Your task to perform on an android device: open device folders in google photos Image 0: 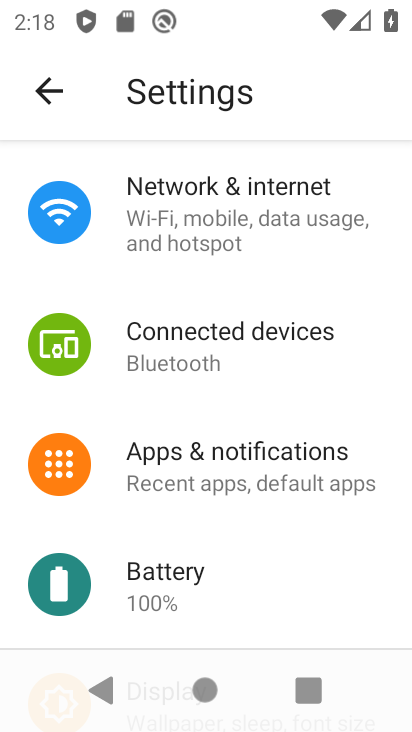
Step 0: press home button
Your task to perform on an android device: open device folders in google photos Image 1: 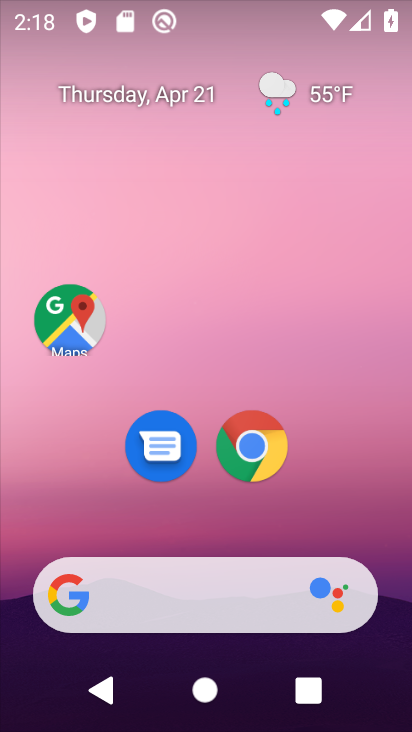
Step 1: drag from (213, 729) to (199, 85)
Your task to perform on an android device: open device folders in google photos Image 2: 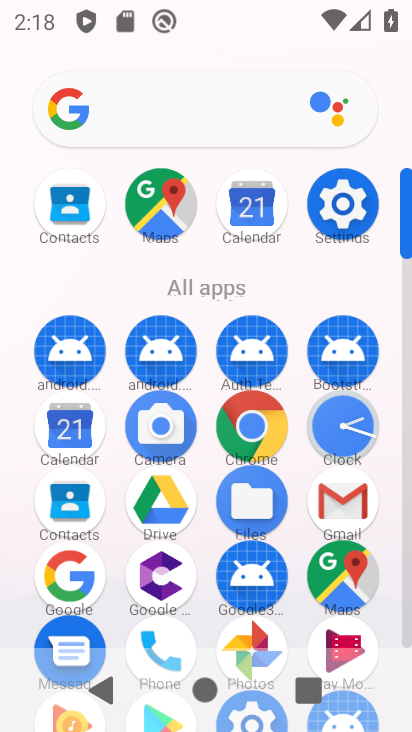
Step 2: drag from (210, 575) to (186, 255)
Your task to perform on an android device: open device folders in google photos Image 3: 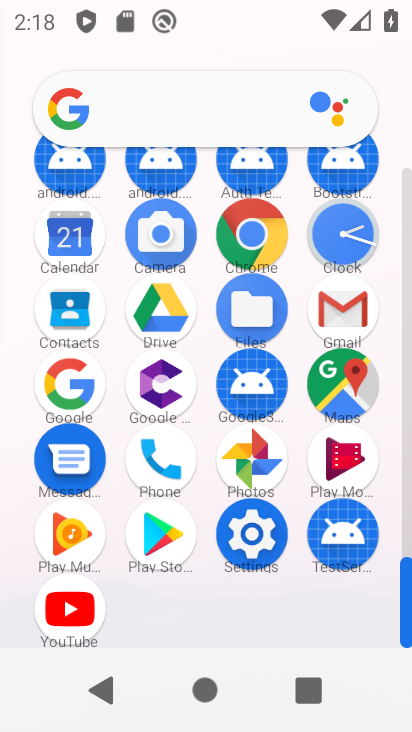
Step 3: click (255, 455)
Your task to perform on an android device: open device folders in google photos Image 4: 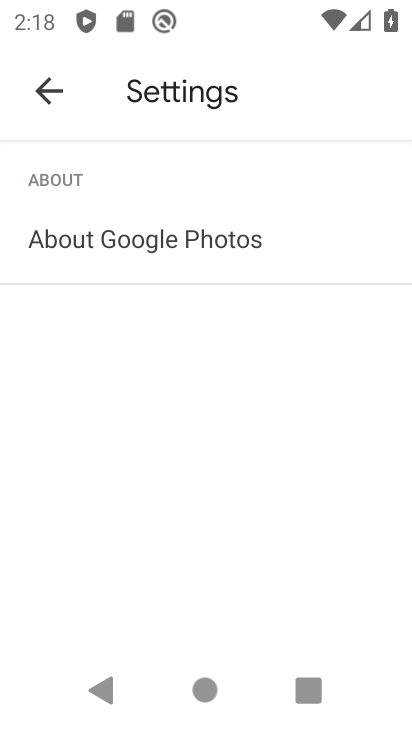
Step 4: click (50, 88)
Your task to perform on an android device: open device folders in google photos Image 5: 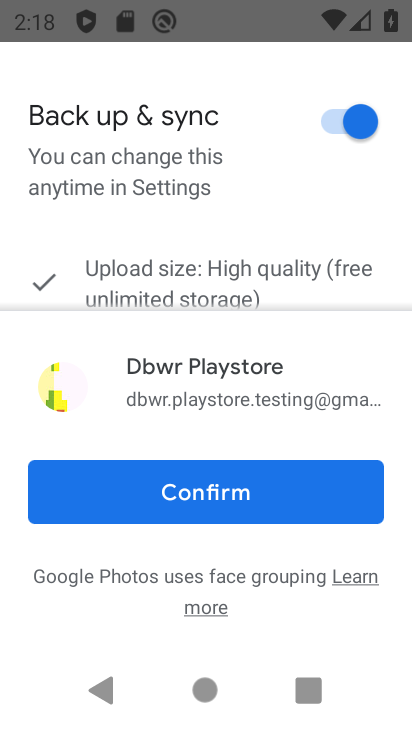
Step 5: click (198, 494)
Your task to perform on an android device: open device folders in google photos Image 6: 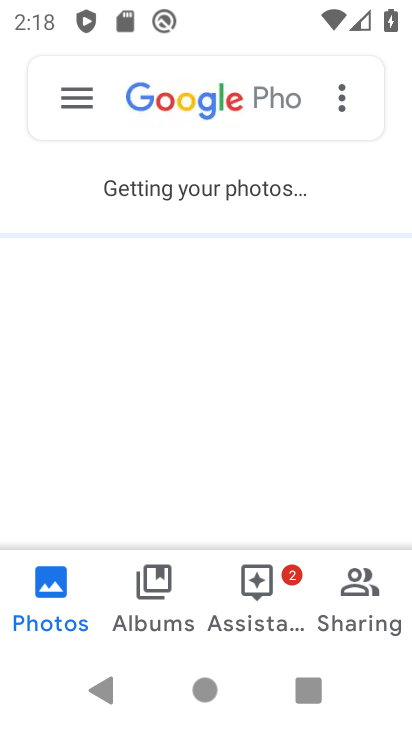
Step 6: click (71, 98)
Your task to perform on an android device: open device folders in google photos Image 7: 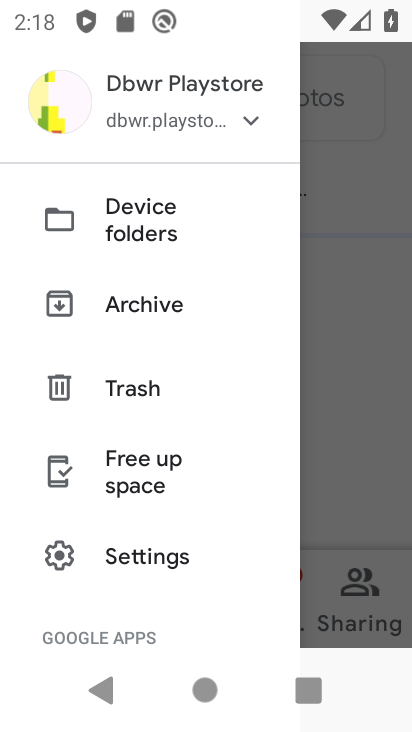
Step 7: click (137, 222)
Your task to perform on an android device: open device folders in google photos Image 8: 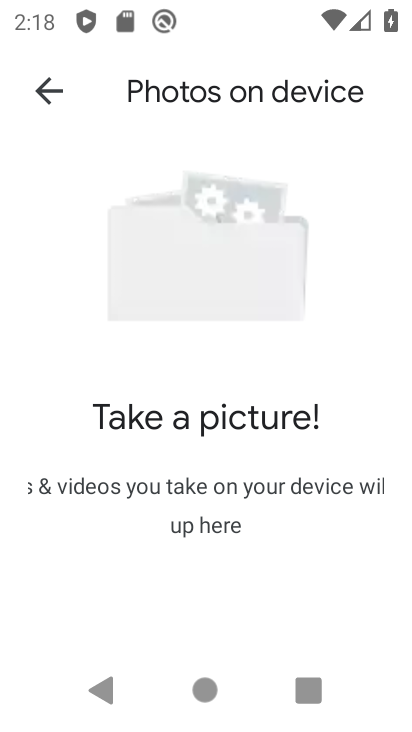
Step 8: task complete